Your task to perform on an android device: toggle sleep mode Image 0: 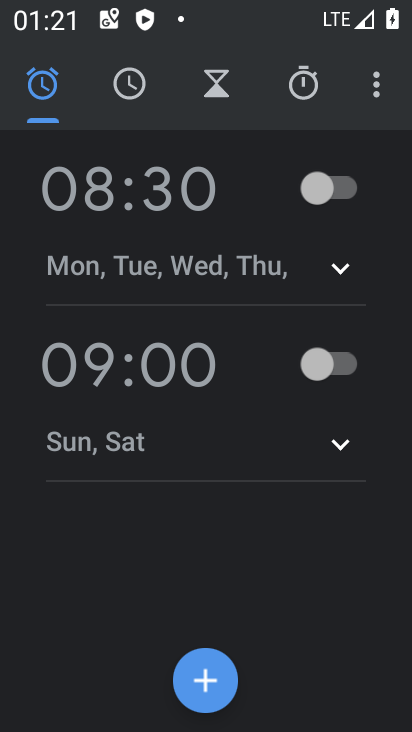
Step 0: press home button
Your task to perform on an android device: toggle sleep mode Image 1: 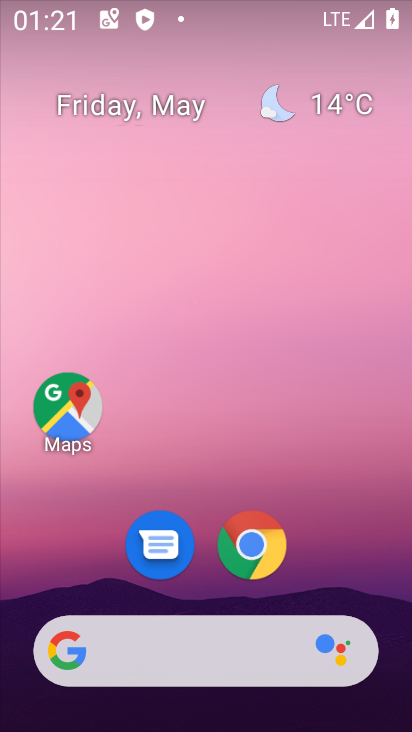
Step 1: drag from (308, 574) to (261, 243)
Your task to perform on an android device: toggle sleep mode Image 2: 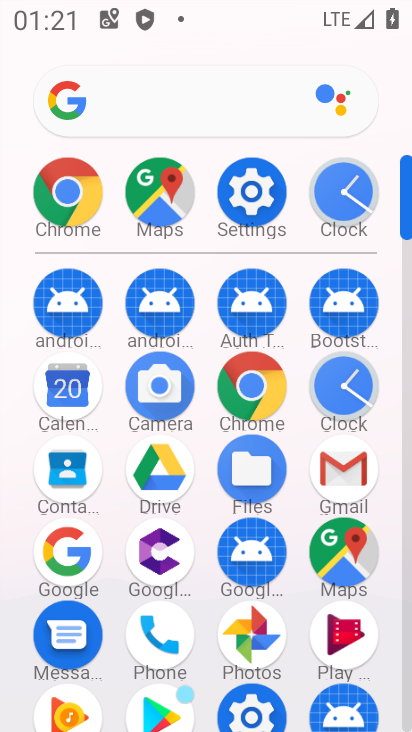
Step 2: click (248, 194)
Your task to perform on an android device: toggle sleep mode Image 3: 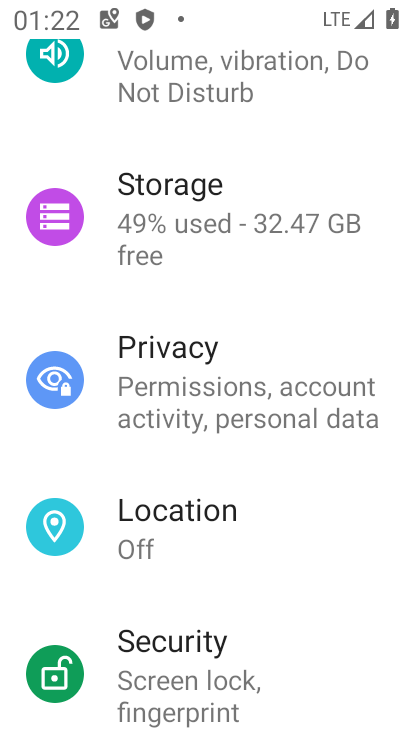
Step 3: task complete